Your task to perform on an android device: turn notification dots off Image 0: 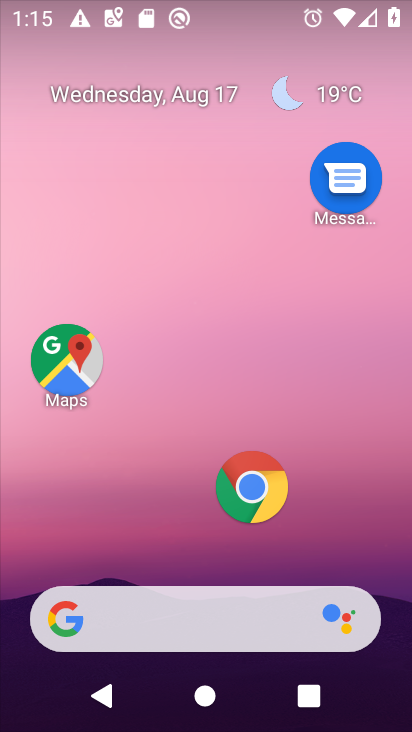
Step 0: drag from (148, 500) to (270, 3)
Your task to perform on an android device: turn notification dots off Image 1: 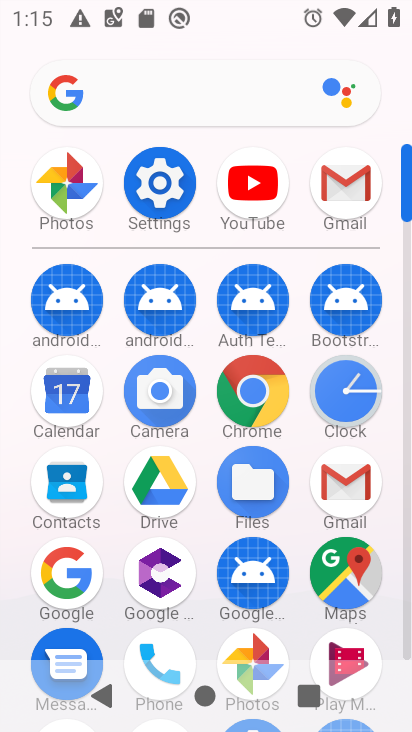
Step 1: click (163, 185)
Your task to perform on an android device: turn notification dots off Image 2: 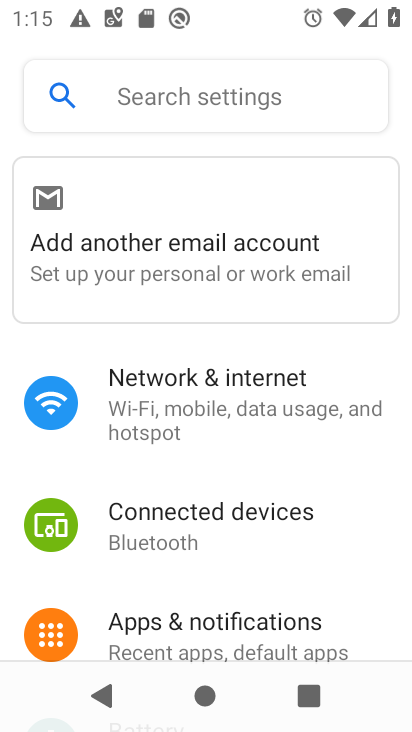
Step 2: click (259, 626)
Your task to perform on an android device: turn notification dots off Image 3: 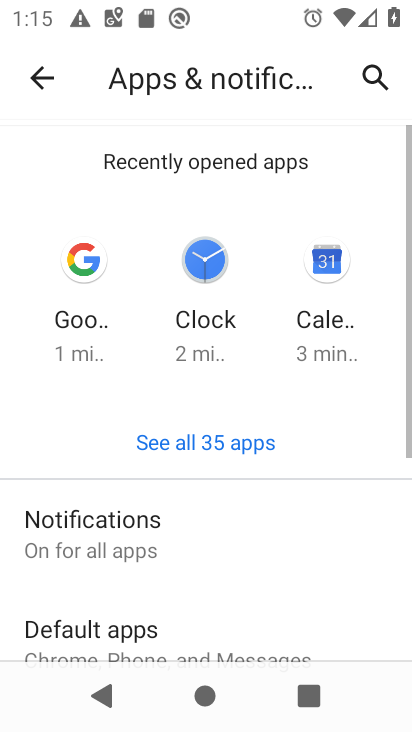
Step 3: click (176, 546)
Your task to perform on an android device: turn notification dots off Image 4: 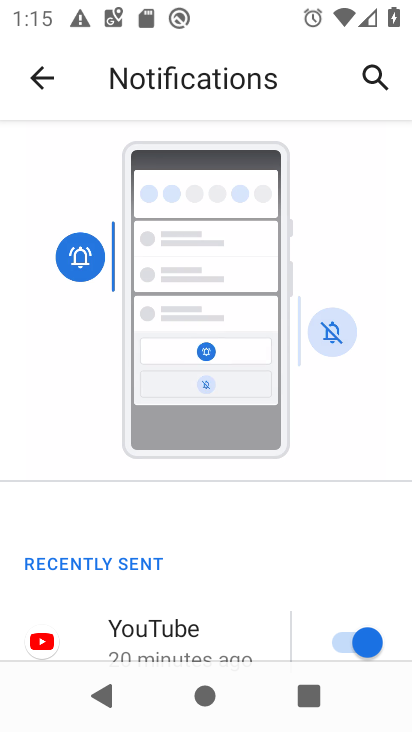
Step 4: drag from (181, 595) to (281, 62)
Your task to perform on an android device: turn notification dots off Image 5: 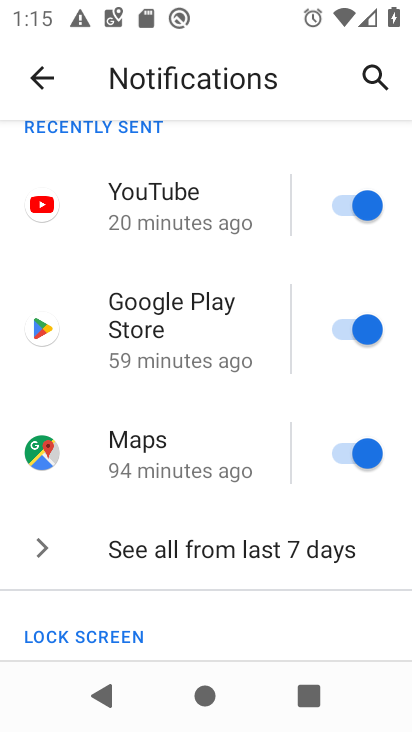
Step 5: drag from (207, 592) to (229, 70)
Your task to perform on an android device: turn notification dots off Image 6: 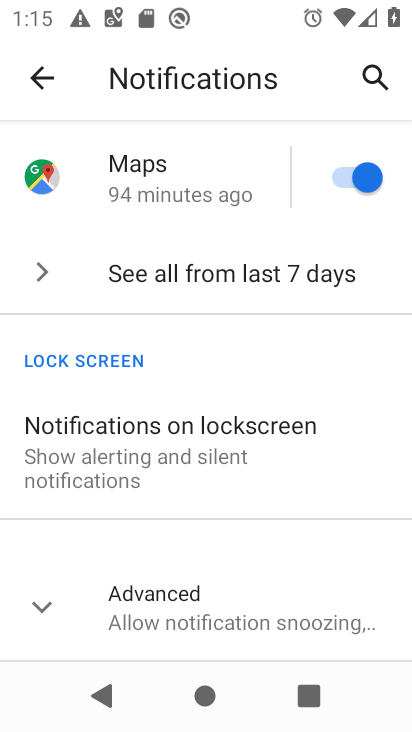
Step 6: click (198, 595)
Your task to perform on an android device: turn notification dots off Image 7: 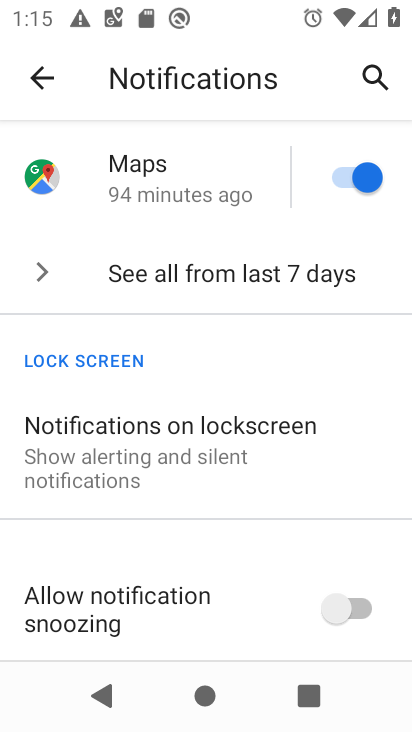
Step 7: drag from (177, 629) to (230, 112)
Your task to perform on an android device: turn notification dots off Image 8: 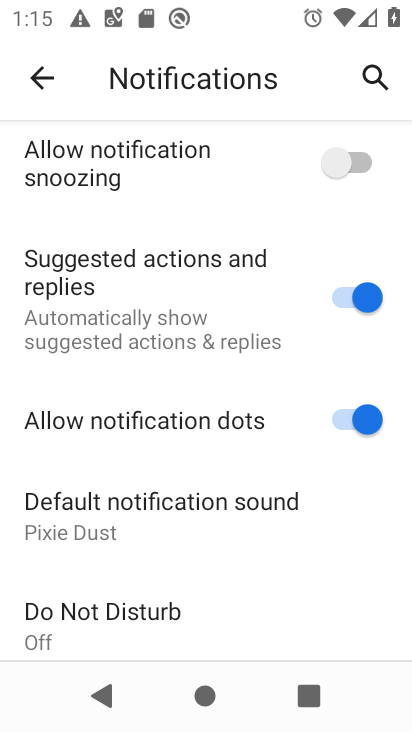
Step 8: click (375, 417)
Your task to perform on an android device: turn notification dots off Image 9: 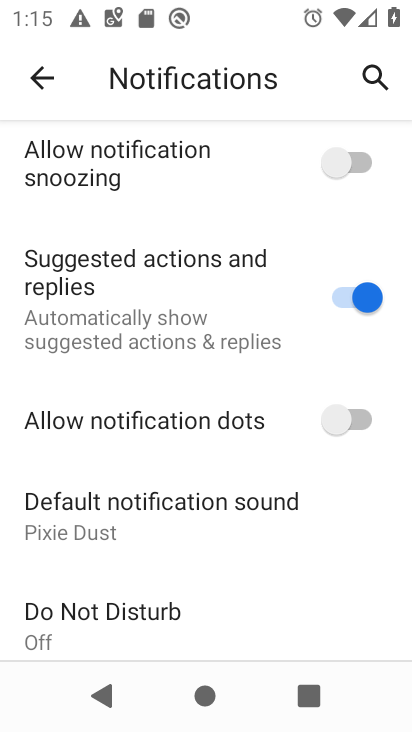
Step 9: task complete